Your task to perform on an android device: Show me recent news Image 0: 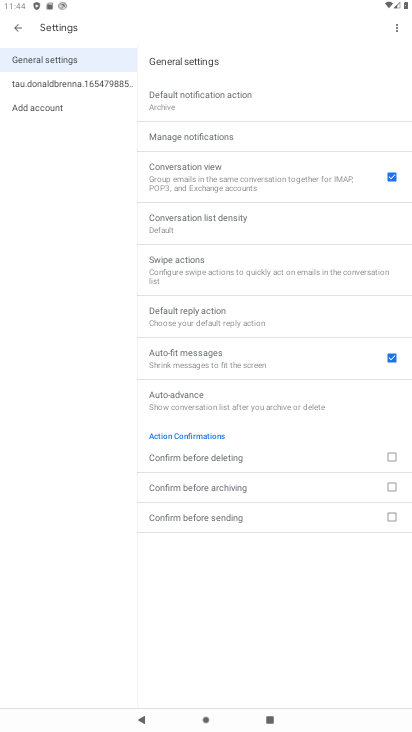
Step 0: press home button
Your task to perform on an android device: Show me recent news Image 1: 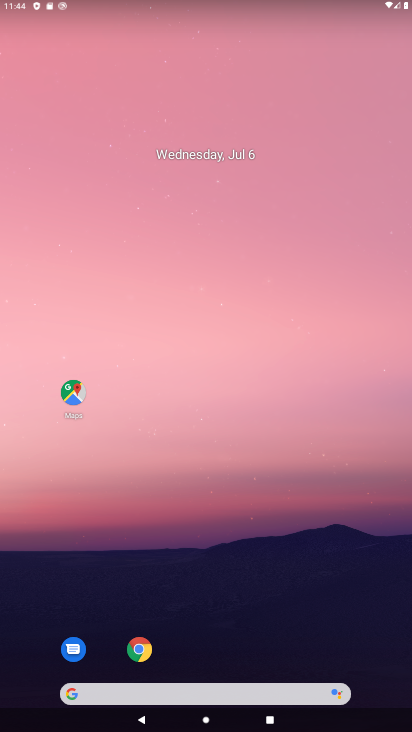
Step 1: drag from (191, 698) to (287, 107)
Your task to perform on an android device: Show me recent news Image 2: 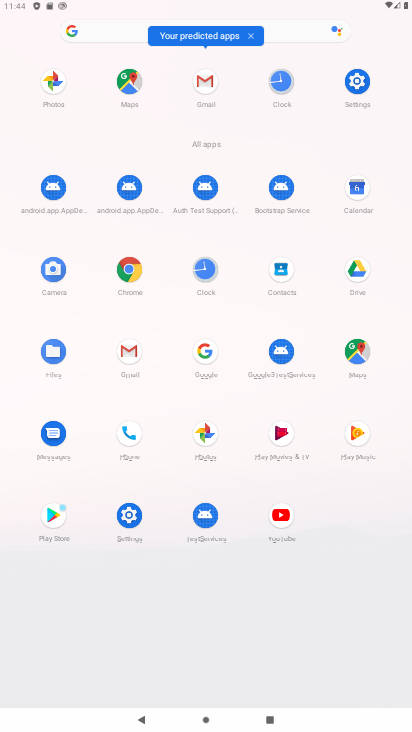
Step 2: click (195, 334)
Your task to perform on an android device: Show me recent news Image 3: 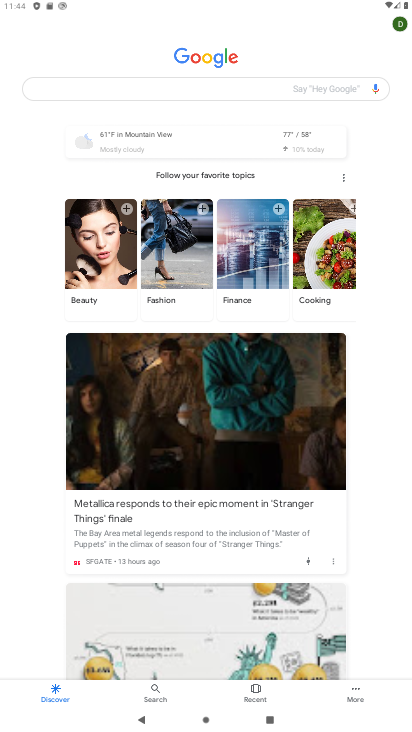
Step 3: task complete